Your task to perform on an android device: toggle wifi Image 0: 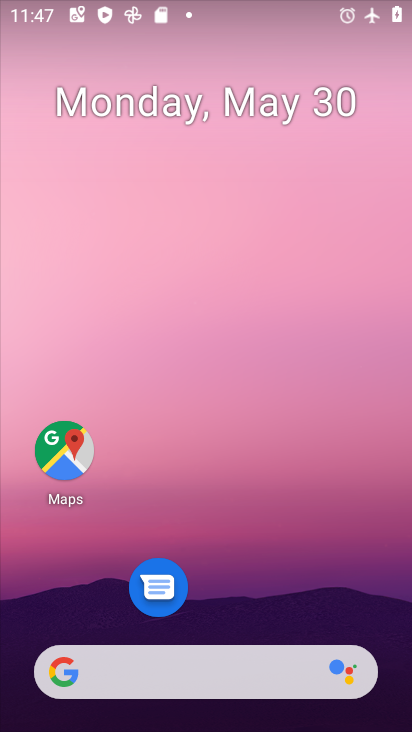
Step 0: drag from (233, 633) to (203, 0)
Your task to perform on an android device: toggle wifi Image 1: 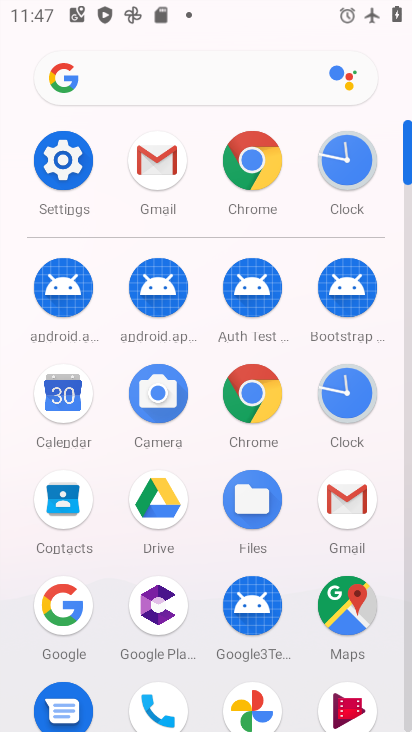
Step 1: click (77, 164)
Your task to perform on an android device: toggle wifi Image 2: 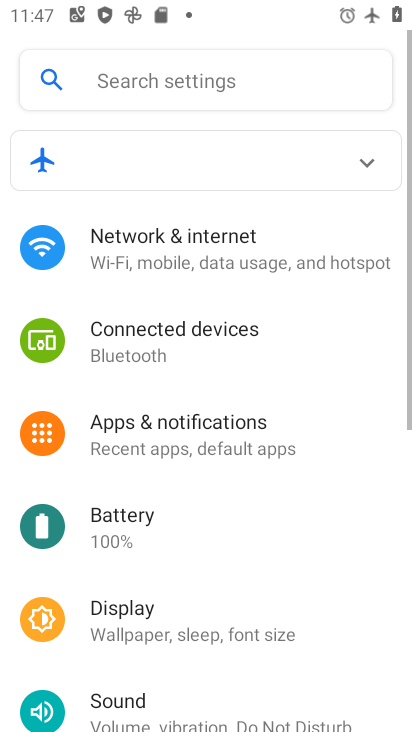
Step 2: click (179, 231)
Your task to perform on an android device: toggle wifi Image 3: 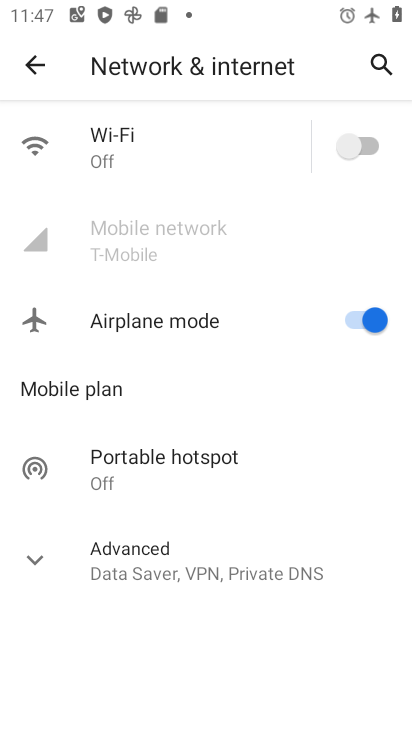
Step 3: click (359, 155)
Your task to perform on an android device: toggle wifi Image 4: 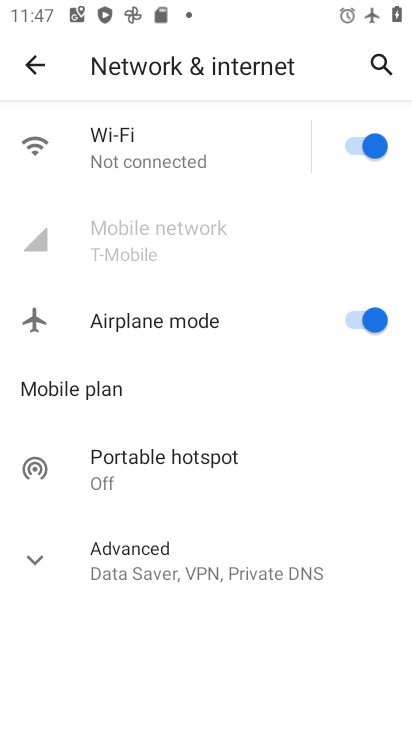
Step 4: task complete